Your task to perform on an android device: Open Reddit.com Image 0: 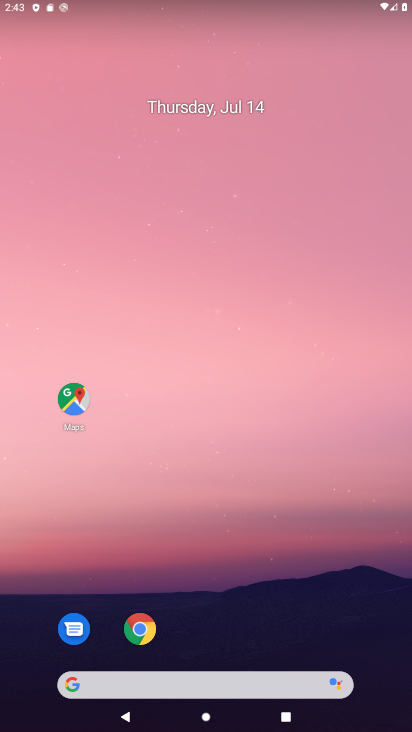
Step 0: click (146, 626)
Your task to perform on an android device: Open Reddit.com Image 1: 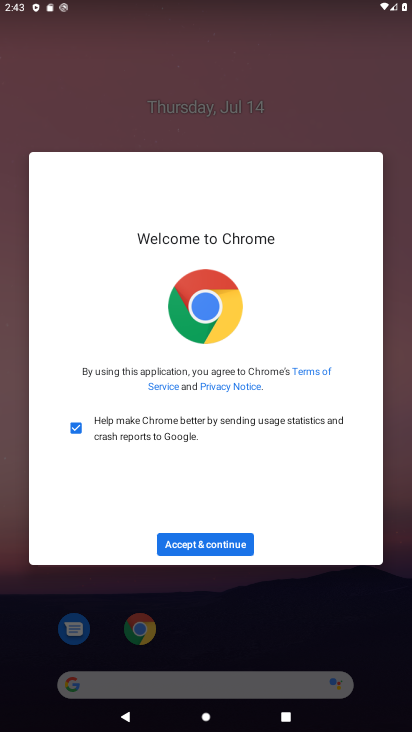
Step 1: click (238, 543)
Your task to perform on an android device: Open Reddit.com Image 2: 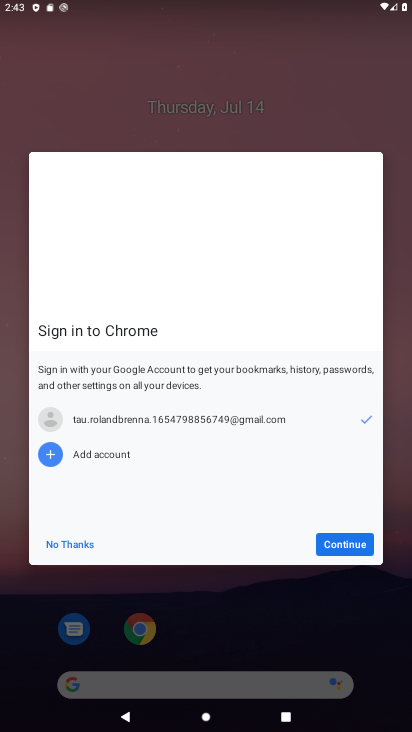
Step 2: click (321, 551)
Your task to perform on an android device: Open Reddit.com Image 3: 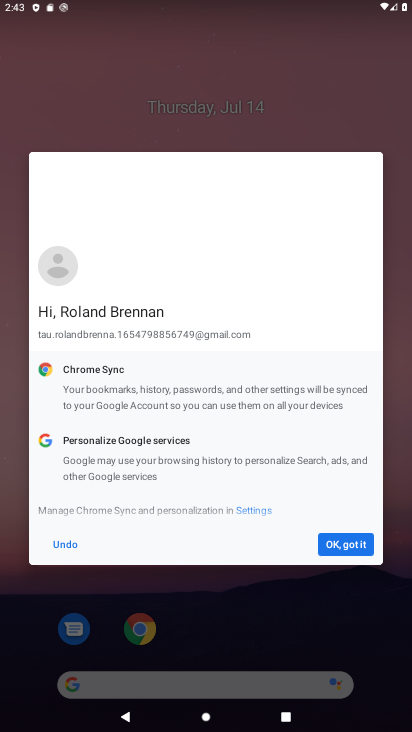
Step 3: click (321, 551)
Your task to perform on an android device: Open Reddit.com Image 4: 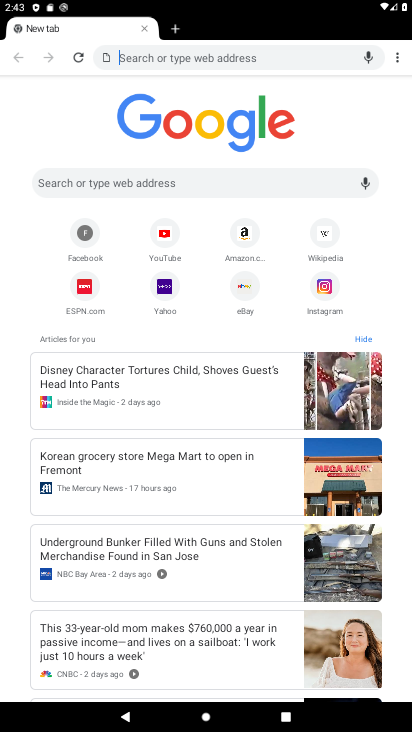
Step 4: click (180, 195)
Your task to perform on an android device: Open Reddit.com Image 5: 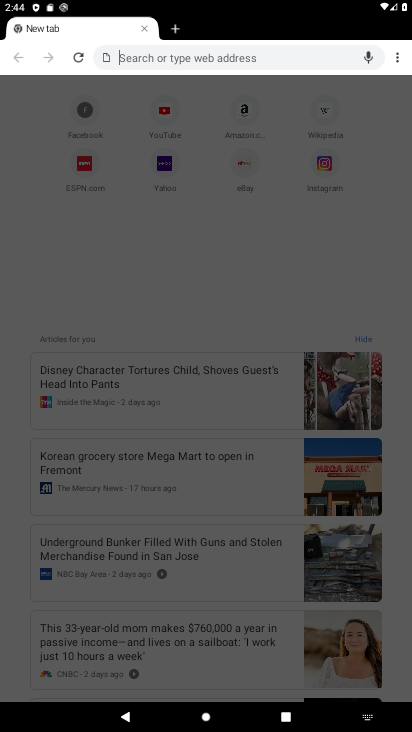
Step 5: type "Reddit.com"
Your task to perform on an android device: Open Reddit.com Image 6: 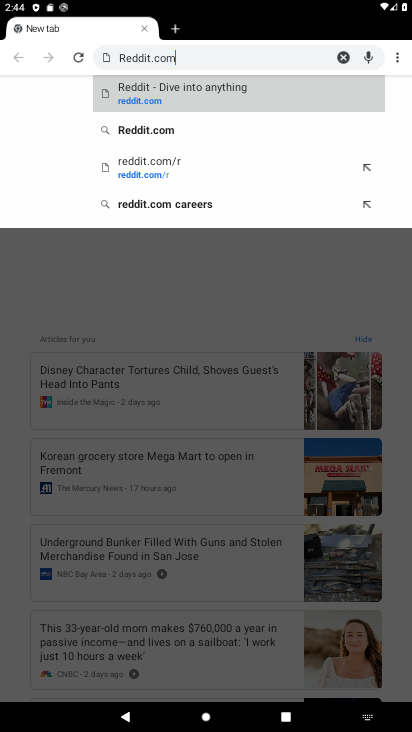
Step 6: click (172, 94)
Your task to perform on an android device: Open Reddit.com Image 7: 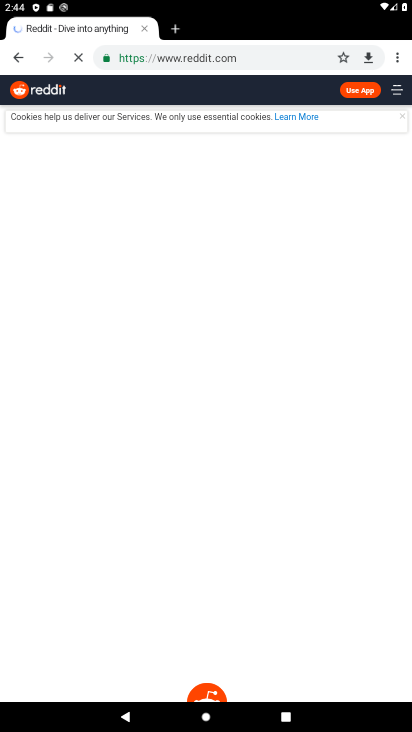
Step 7: task complete